Your task to perform on an android device: Open Chrome and go to the settings page Image 0: 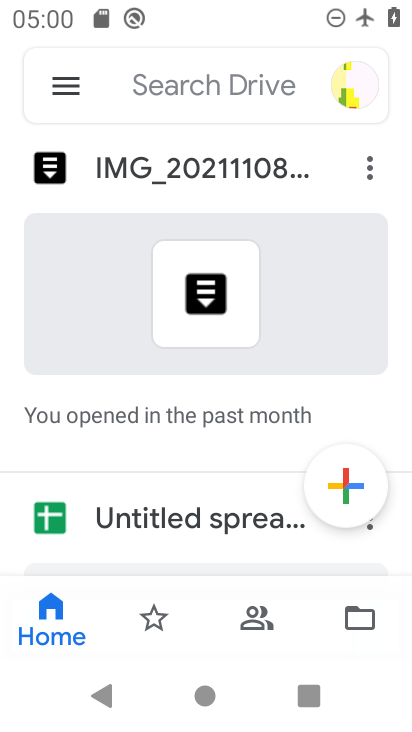
Step 0: press home button
Your task to perform on an android device: Open Chrome and go to the settings page Image 1: 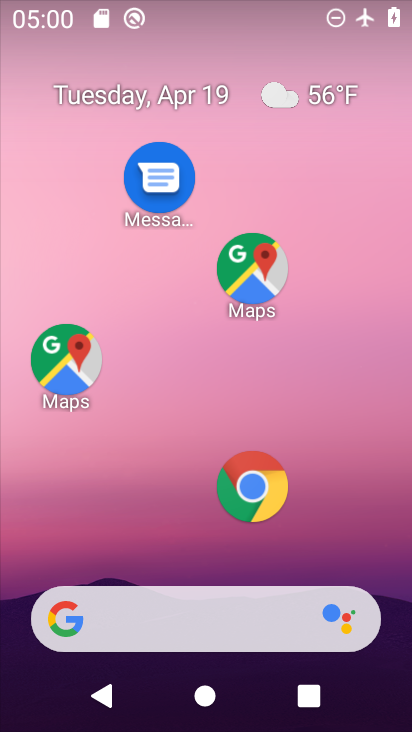
Step 1: click (283, 500)
Your task to perform on an android device: Open Chrome and go to the settings page Image 2: 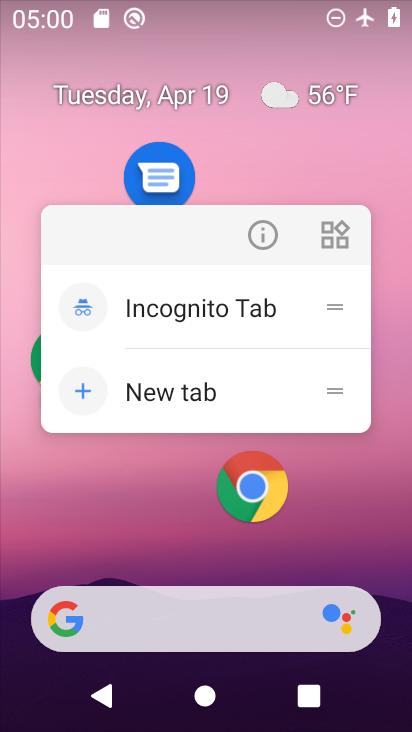
Step 2: click (265, 248)
Your task to perform on an android device: Open Chrome and go to the settings page Image 3: 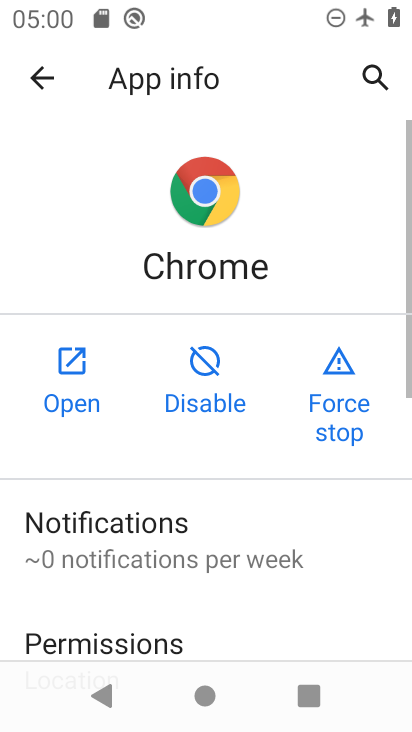
Step 3: click (52, 418)
Your task to perform on an android device: Open Chrome and go to the settings page Image 4: 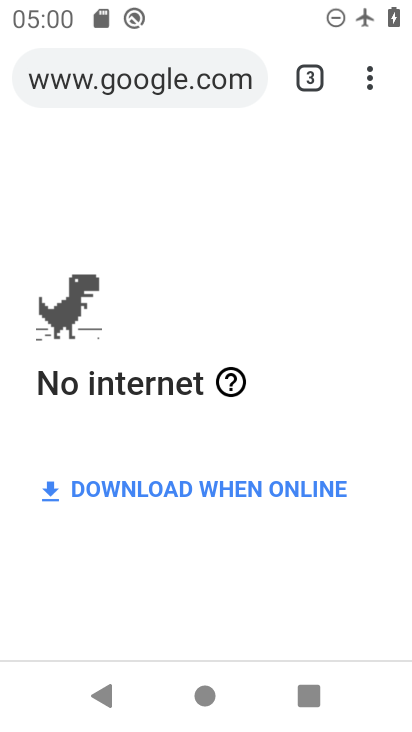
Step 4: click (373, 80)
Your task to perform on an android device: Open Chrome and go to the settings page Image 5: 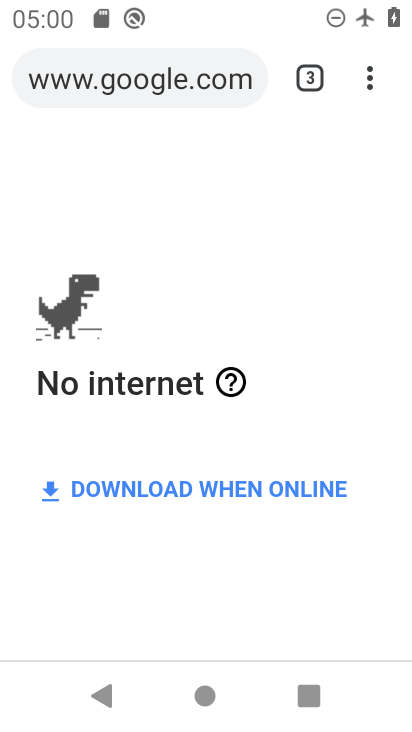
Step 5: click (352, 79)
Your task to perform on an android device: Open Chrome and go to the settings page Image 6: 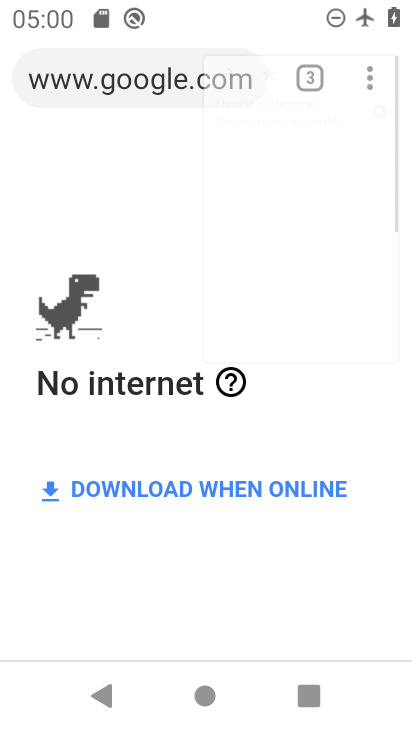
Step 6: click (370, 80)
Your task to perform on an android device: Open Chrome and go to the settings page Image 7: 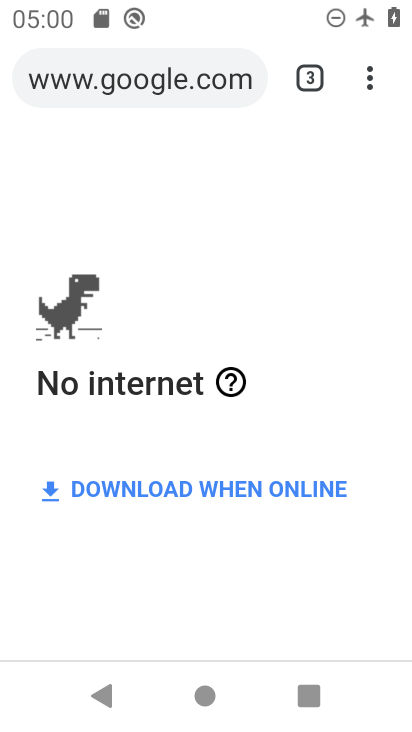
Step 7: click (369, 91)
Your task to perform on an android device: Open Chrome and go to the settings page Image 8: 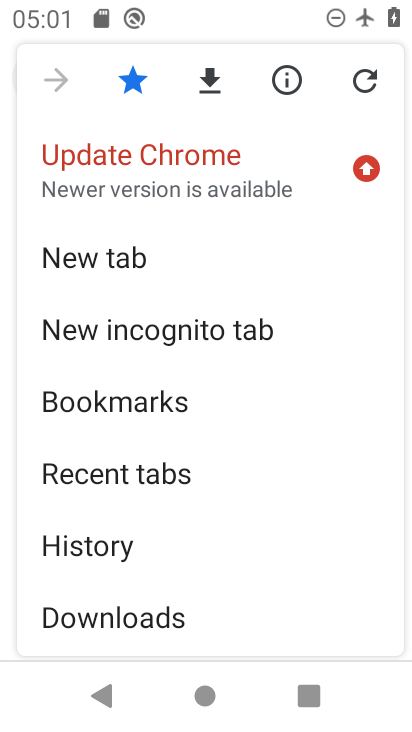
Step 8: drag from (196, 462) to (210, 163)
Your task to perform on an android device: Open Chrome and go to the settings page Image 9: 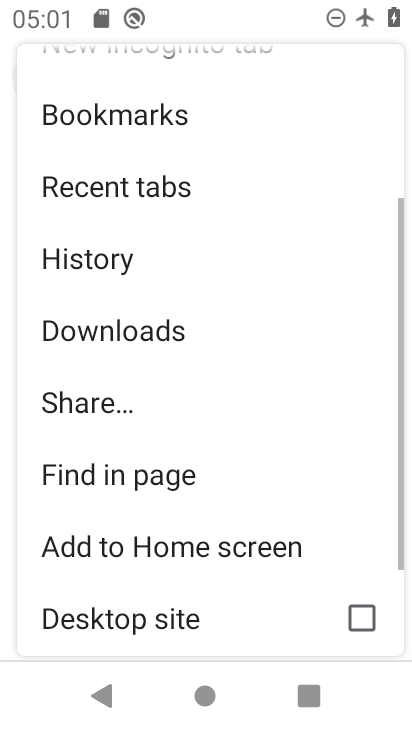
Step 9: drag from (180, 485) to (237, 243)
Your task to perform on an android device: Open Chrome and go to the settings page Image 10: 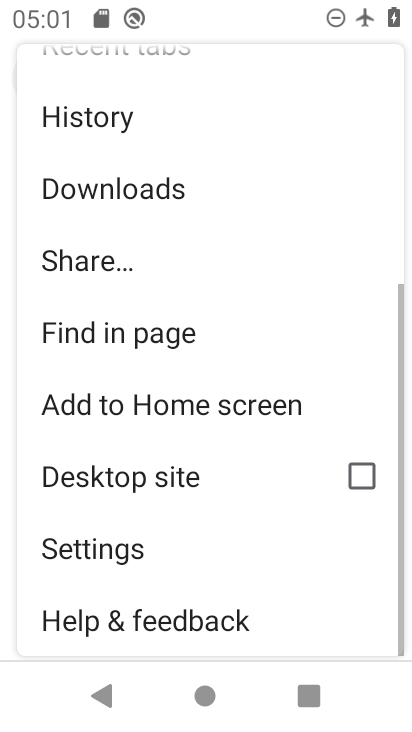
Step 10: click (198, 556)
Your task to perform on an android device: Open Chrome and go to the settings page Image 11: 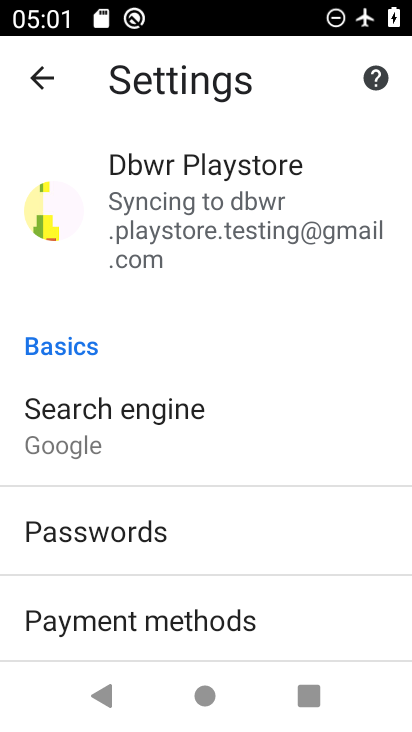
Step 11: task complete